Your task to perform on an android device: move an email to a new category in the gmail app Image 0: 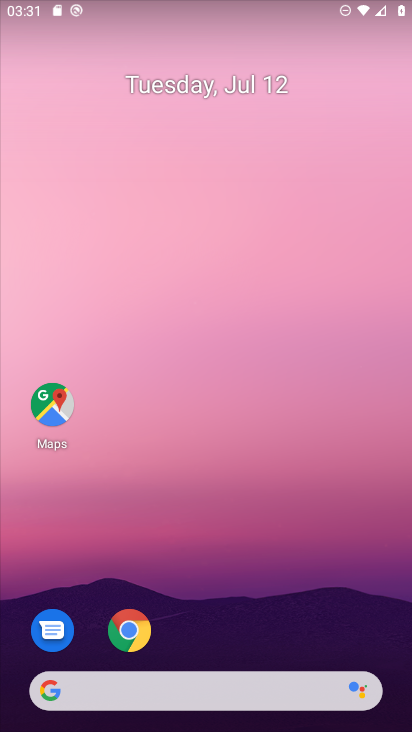
Step 0: drag from (368, 647) to (371, 210)
Your task to perform on an android device: move an email to a new category in the gmail app Image 1: 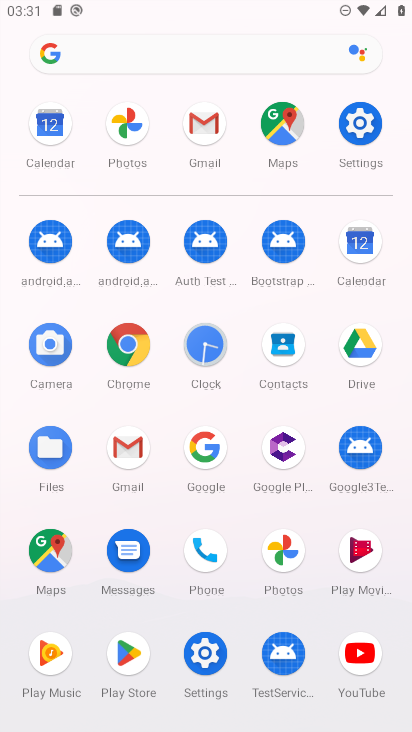
Step 1: click (128, 452)
Your task to perform on an android device: move an email to a new category in the gmail app Image 2: 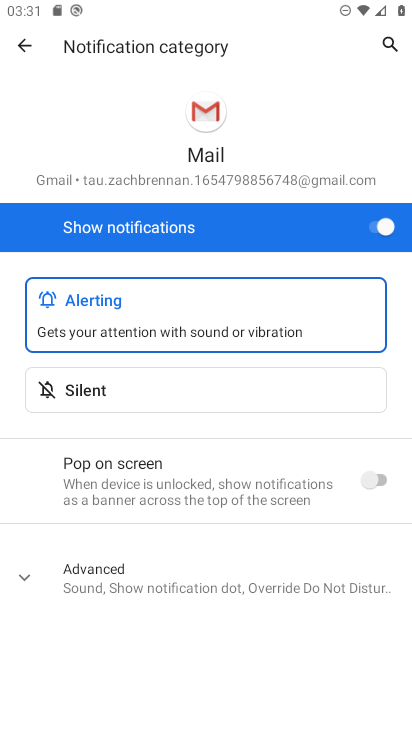
Step 2: press back button
Your task to perform on an android device: move an email to a new category in the gmail app Image 3: 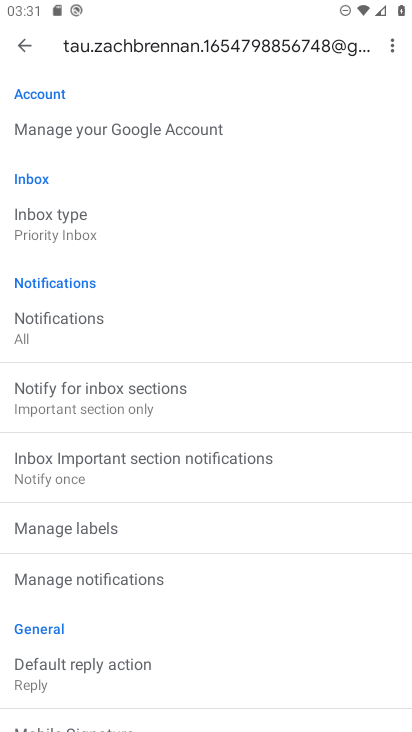
Step 3: press back button
Your task to perform on an android device: move an email to a new category in the gmail app Image 4: 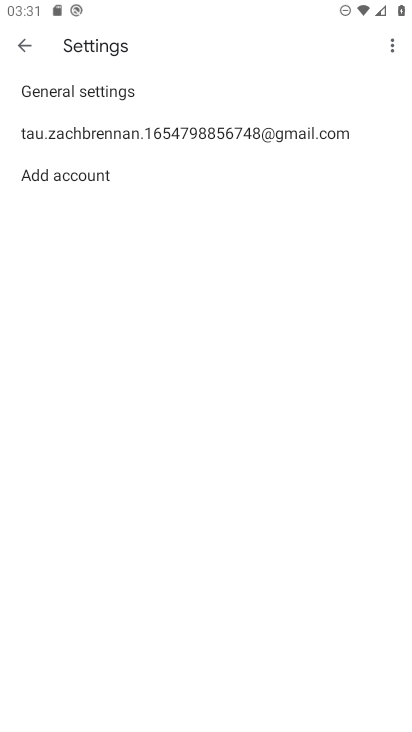
Step 4: press back button
Your task to perform on an android device: move an email to a new category in the gmail app Image 5: 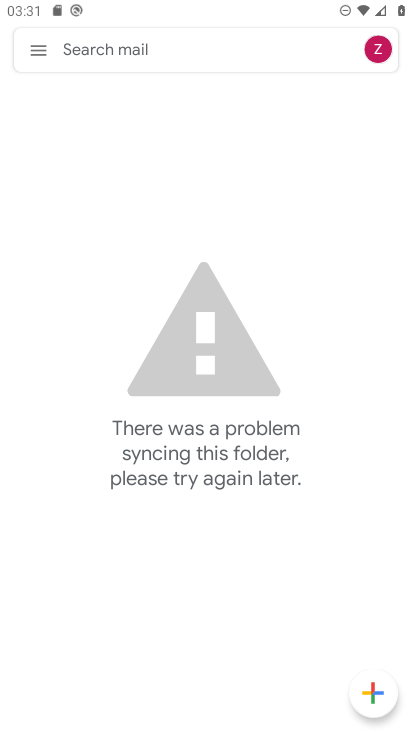
Step 5: click (35, 42)
Your task to perform on an android device: move an email to a new category in the gmail app Image 6: 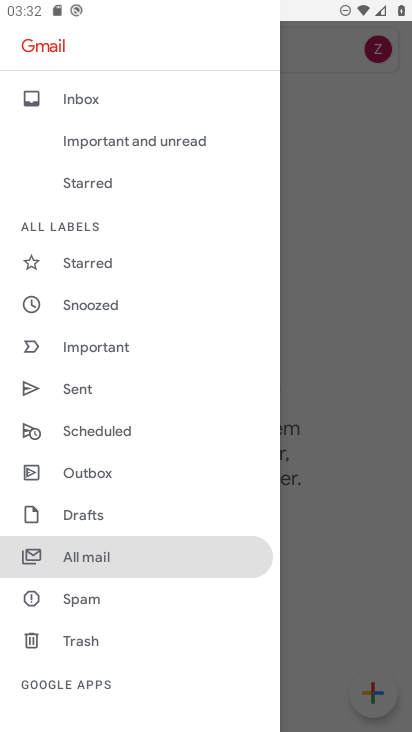
Step 6: click (104, 552)
Your task to perform on an android device: move an email to a new category in the gmail app Image 7: 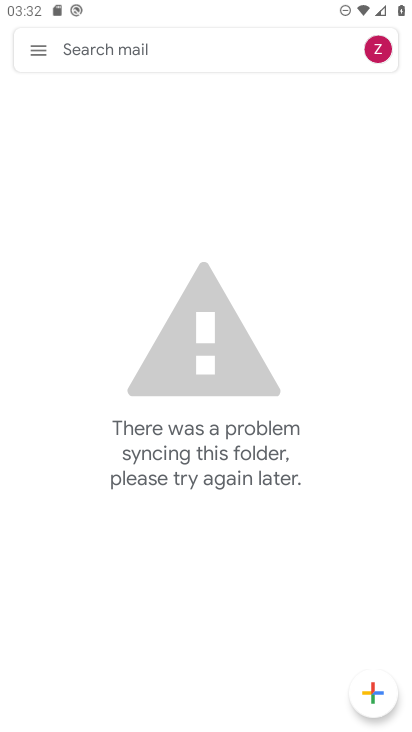
Step 7: task complete